Your task to perform on an android device: Show me productivity apps on the Play Store Image 0: 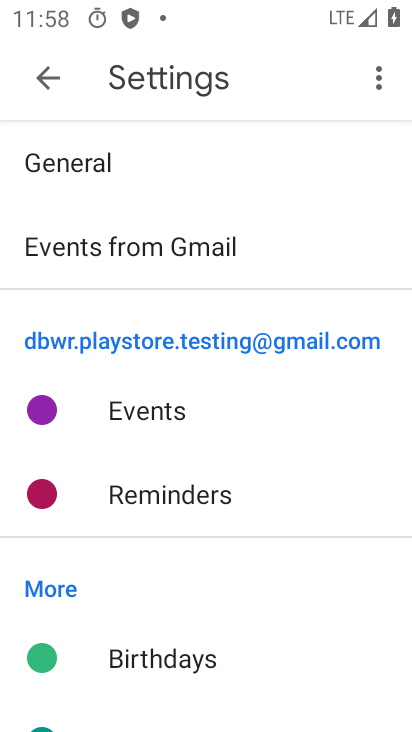
Step 0: press home button
Your task to perform on an android device: Show me productivity apps on the Play Store Image 1: 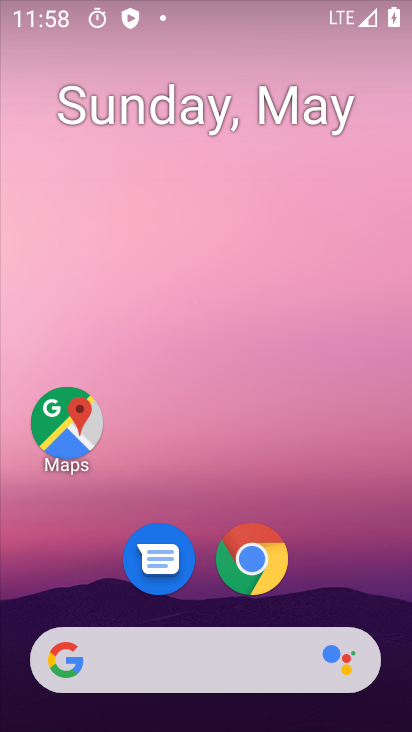
Step 1: drag from (129, 703) to (131, 54)
Your task to perform on an android device: Show me productivity apps on the Play Store Image 2: 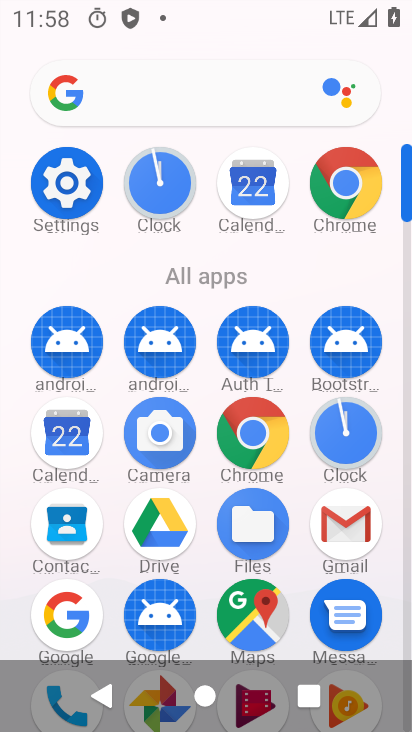
Step 2: drag from (203, 594) to (205, 171)
Your task to perform on an android device: Show me productivity apps on the Play Store Image 3: 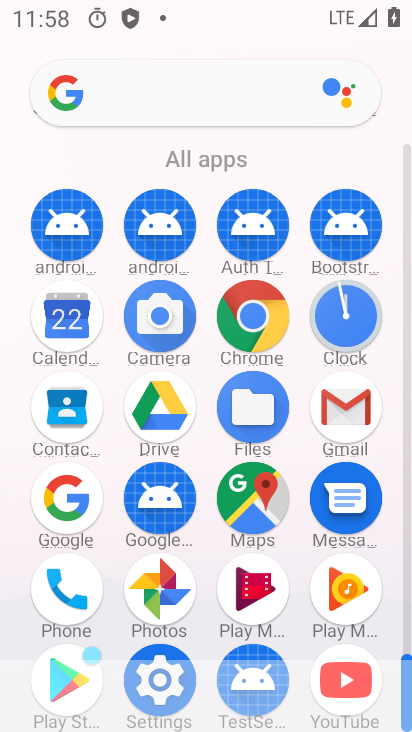
Step 3: click (76, 653)
Your task to perform on an android device: Show me productivity apps on the Play Store Image 4: 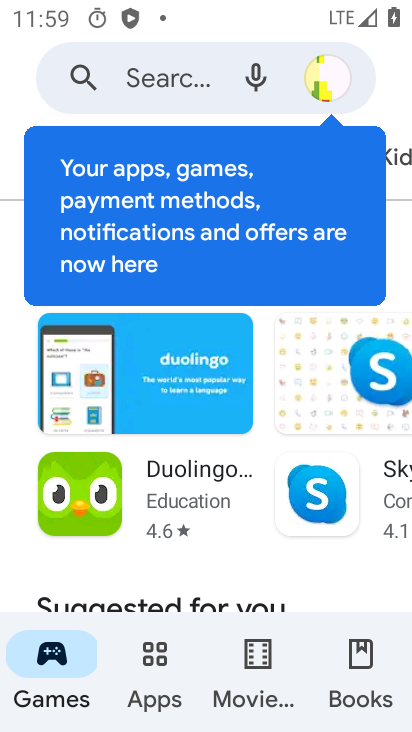
Step 4: click (158, 650)
Your task to perform on an android device: Show me productivity apps on the Play Store Image 5: 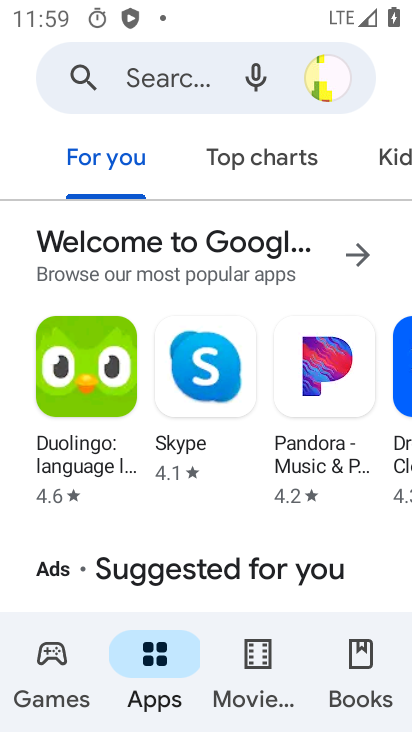
Step 5: drag from (346, 544) to (237, 99)
Your task to perform on an android device: Show me productivity apps on the Play Store Image 6: 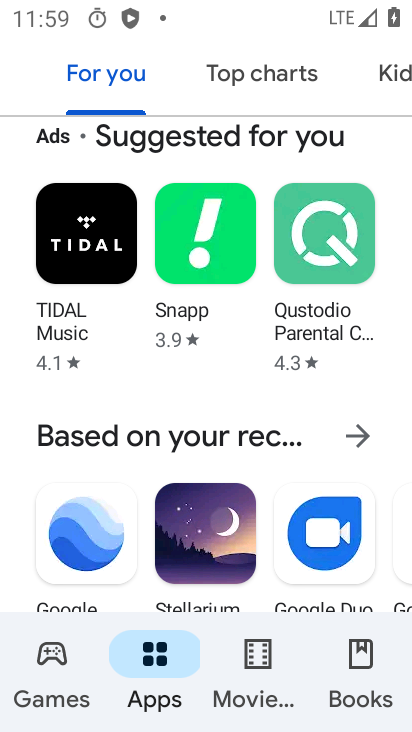
Step 6: drag from (264, 580) to (251, 176)
Your task to perform on an android device: Show me productivity apps on the Play Store Image 7: 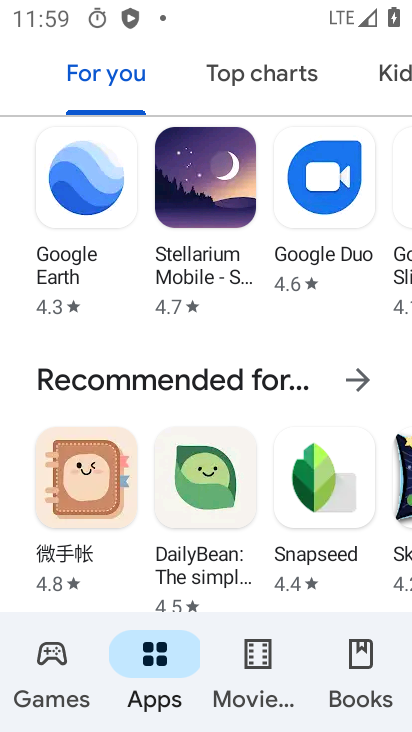
Step 7: drag from (273, 554) to (237, 265)
Your task to perform on an android device: Show me productivity apps on the Play Store Image 8: 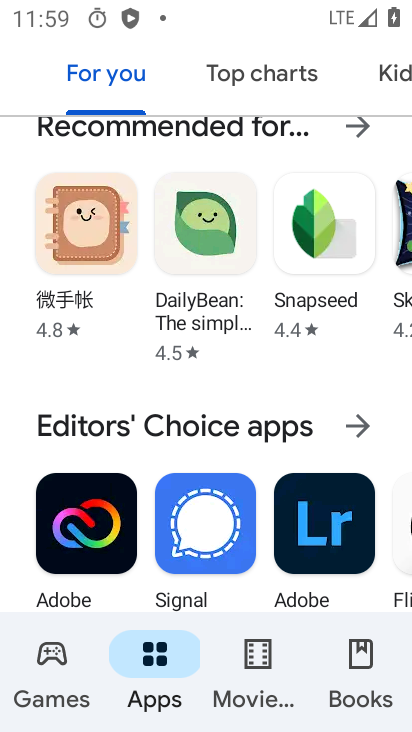
Step 8: drag from (251, 529) to (227, 273)
Your task to perform on an android device: Show me productivity apps on the Play Store Image 9: 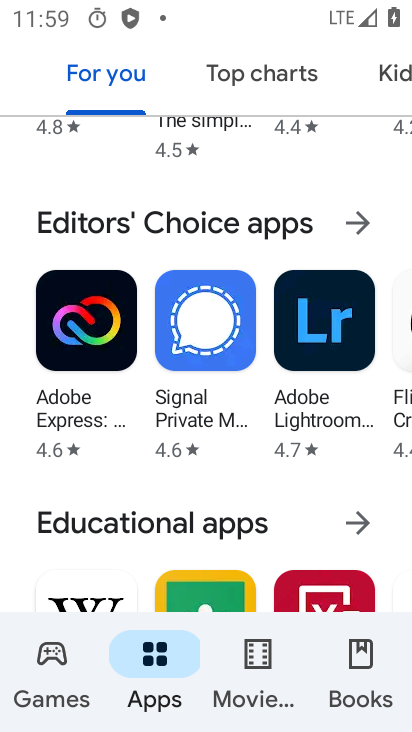
Step 9: drag from (287, 599) to (253, 331)
Your task to perform on an android device: Show me productivity apps on the Play Store Image 10: 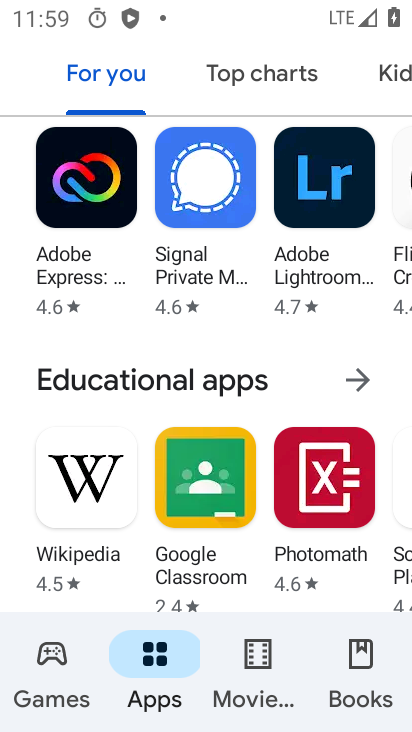
Step 10: drag from (219, 594) to (253, 283)
Your task to perform on an android device: Show me productivity apps on the Play Store Image 11: 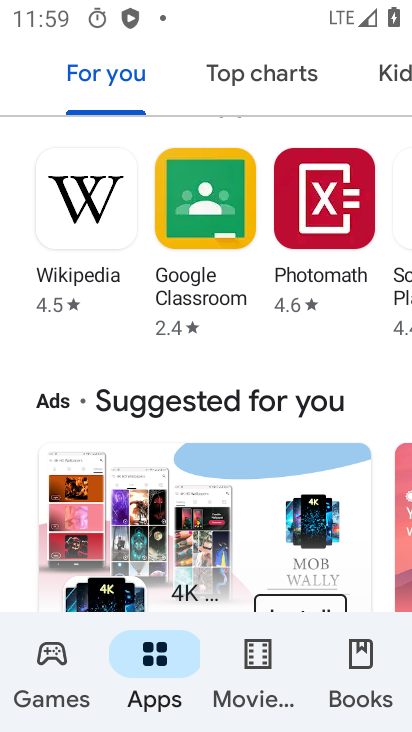
Step 11: drag from (301, 496) to (280, 208)
Your task to perform on an android device: Show me productivity apps on the Play Store Image 12: 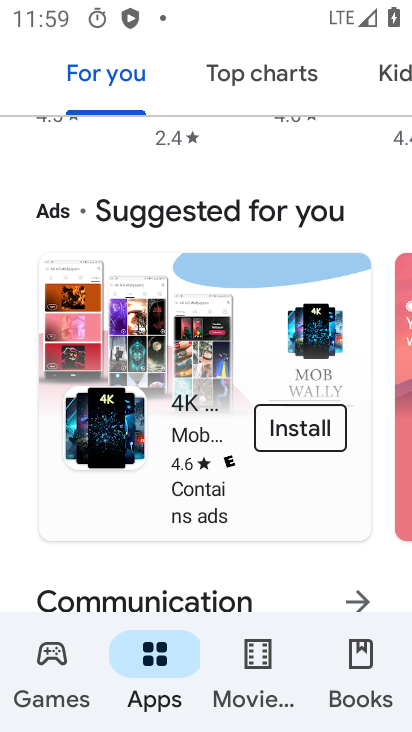
Step 12: drag from (275, 541) to (284, 215)
Your task to perform on an android device: Show me productivity apps on the Play Store Image 13: 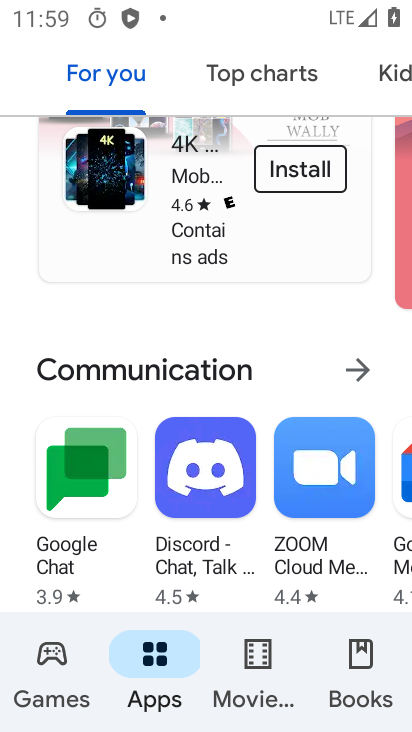
Step 13: drag from (302, 592) to (285, 286)
Your task to perform on an android device: Show me productivity apps on the Play Store Image 14: 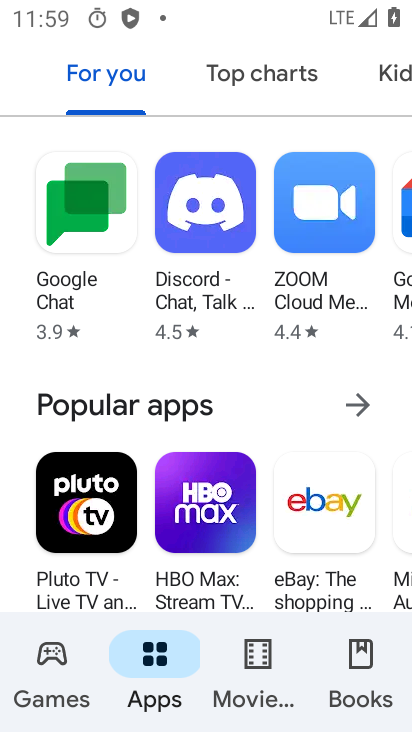
Step 14: drag from (309, 525) to (283, 264)
Your task to perform on an android device: Show me productivity apps on the Play Store Image 15: 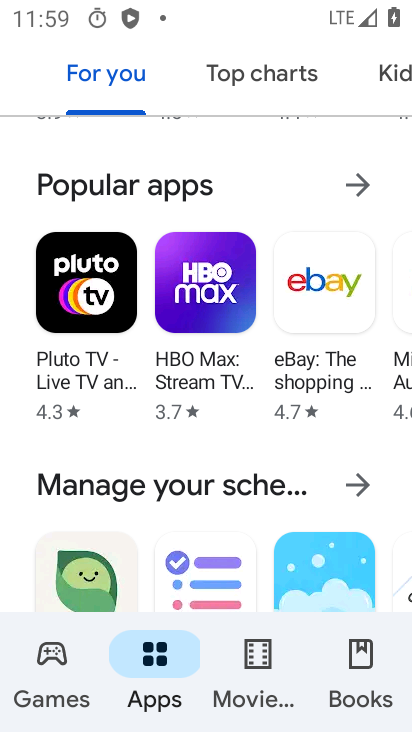
Step 15: drag from (250, 513) to (260, 222)
Your task to perform on an android device: Show me productivity apps on the Play Store Image 16: 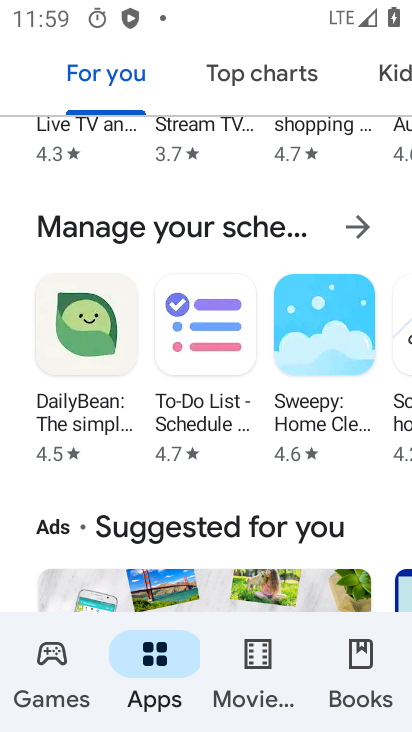
Step 16: drag from (288, 529) to (254, 202)
Your task to perform on an android device: Show me productivity apps on the Play Store Image 17: 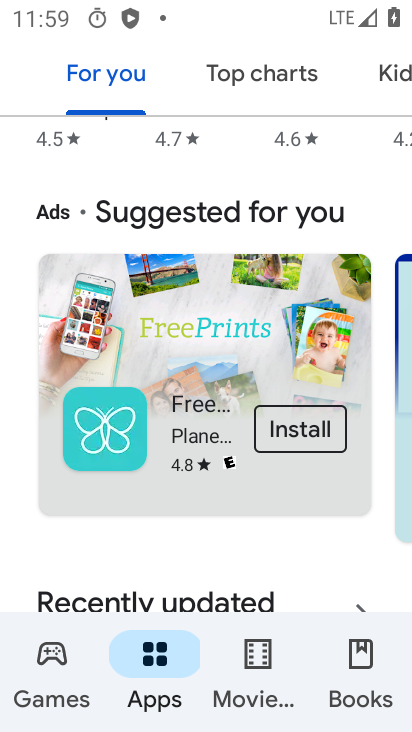
Step 17: drag from (281, 511) to (293, 190)
Your task to perform on an android device: Show me productivity apps on the Play Store Image 18: 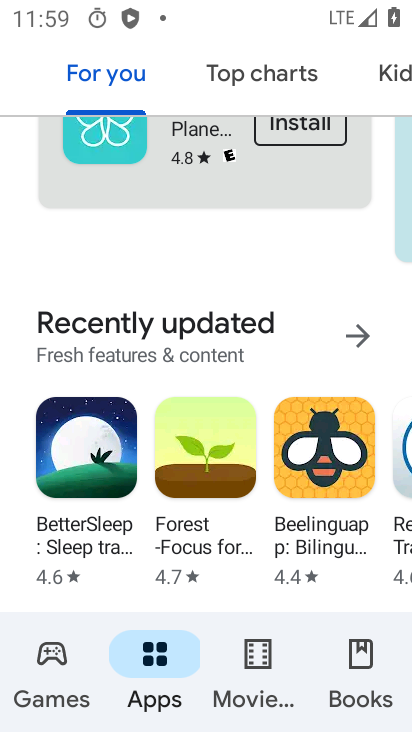
Step 18: drag from (263, 491) to (297, 266)
Your task to perform on an android device: Show me productivity apps on the Play Store Image 19: 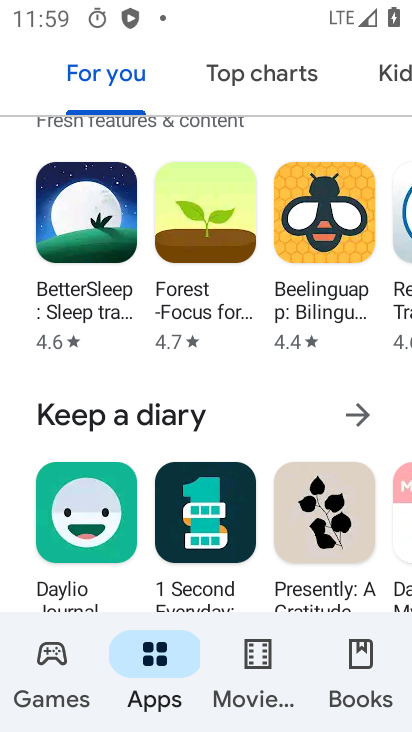
Step 19: drag from (287, 569) to (297, 259)
Your task to perform on an android device: Show me productivity apps on the Play Store Image 20: 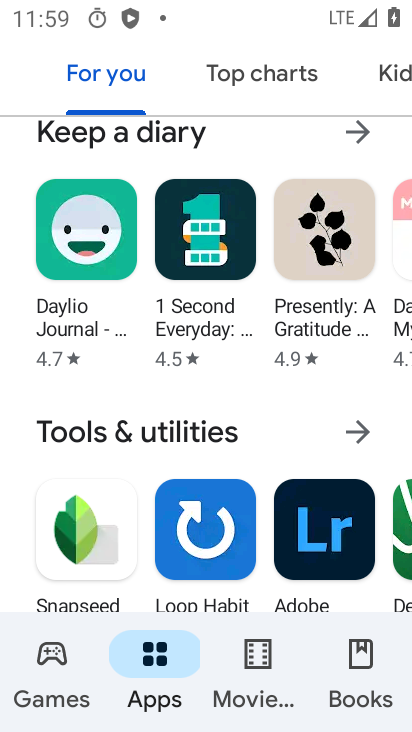
Step 20: drag from (294, 567) to (293, 200)
Your task to perform on an android device: Show me productivity apps on the Play Store Image 21: 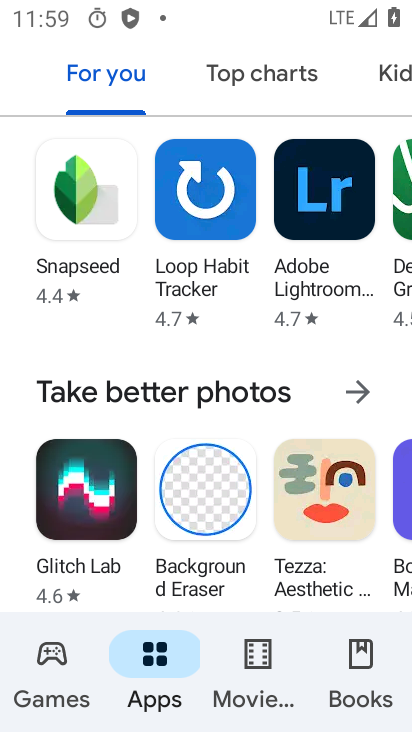
Step 21: drag from (304, 588) to (322, 239)
Your task to perform on an android device: Show me productivity apps on the Play Store Image 22: 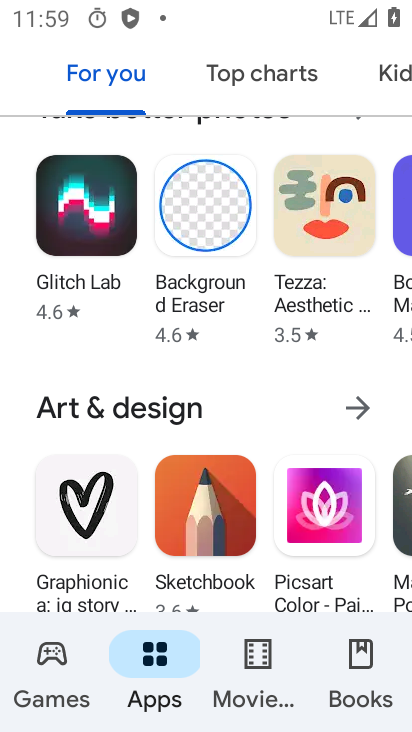
Step 22: drag from (303, 548) to (327, 267)
Your task to perform on an android device: Show me productivity apps on the Play Store Image 23: 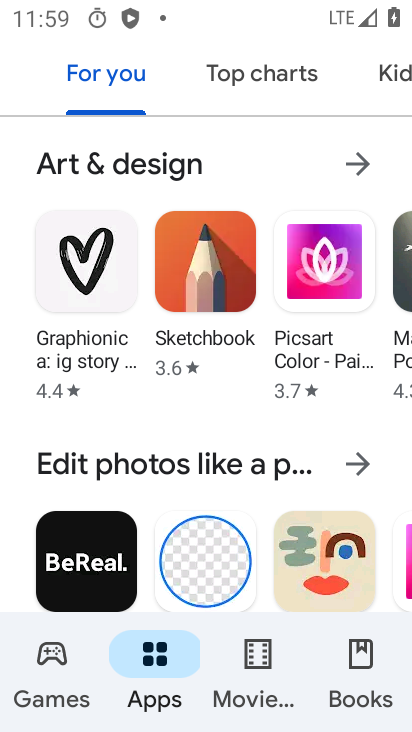
Step 23: drag from (365, 544) to (352, 347)
Your task to perform on an android device: Show me productivity apps on the Play Store Image 24: 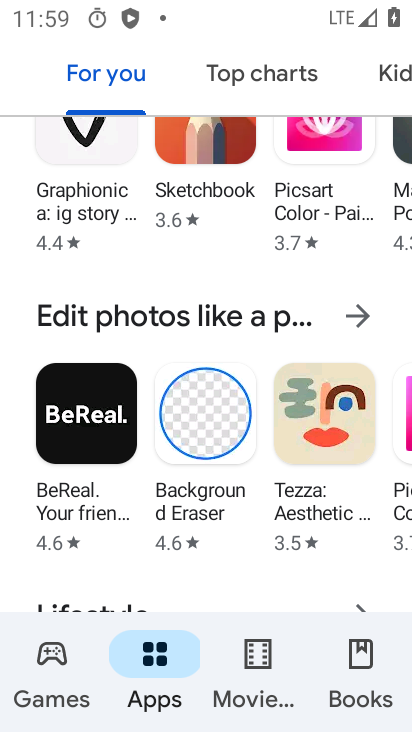
Step 24: drag from (354, 557) to (354, 197)
Your task to perform on an android device: Show me productivity apps on the Play Store Image 25: 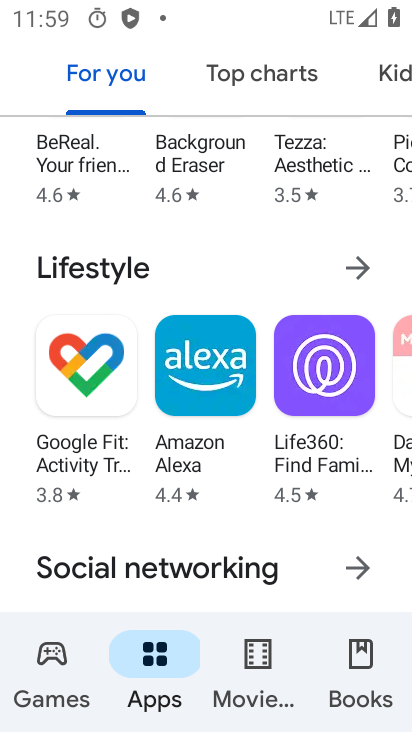
Step 25: drag from (367, 508) to (371, 126)
Your task to perform on an android device: Show me productivity apps on the Play Store Image 26: 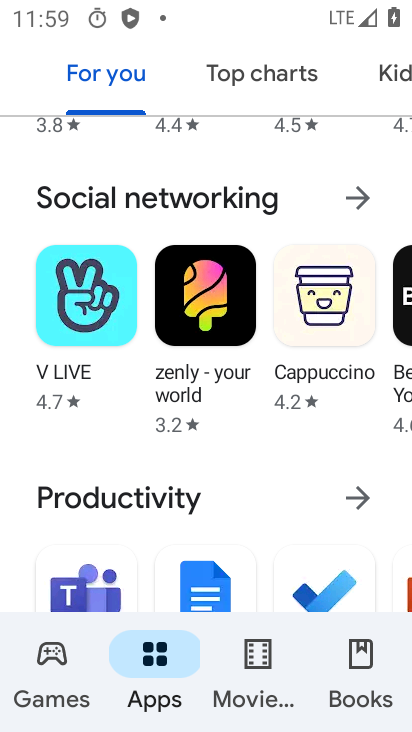
Step 26: drag from (360, 555) to (338, 332)
Your task to perform on an android device: Show me productivity apps on the Play Store Image 27: 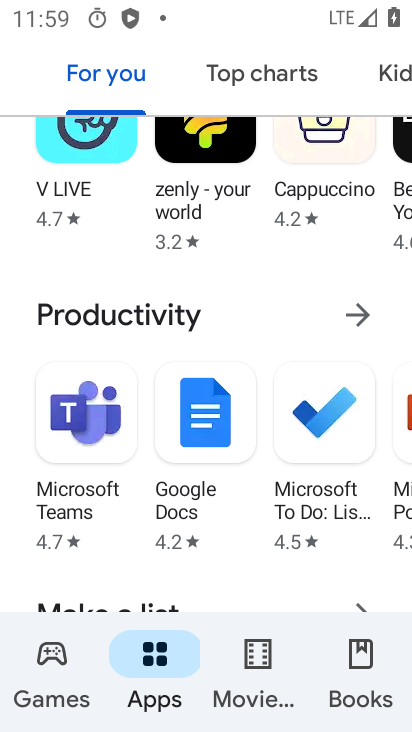
Step 27: click (364, 302)
Your task to perform on an android device: Show me productivity apps on the Play Store Image 28: 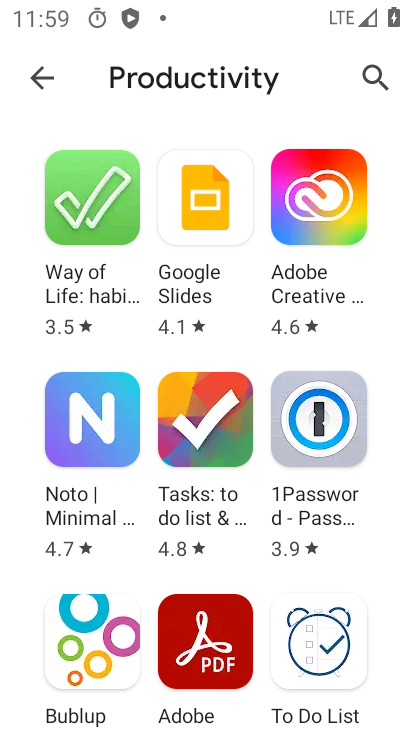
Step 28: task complete